Your task to perform on an android device: change your default location settings in chrome Image 0: 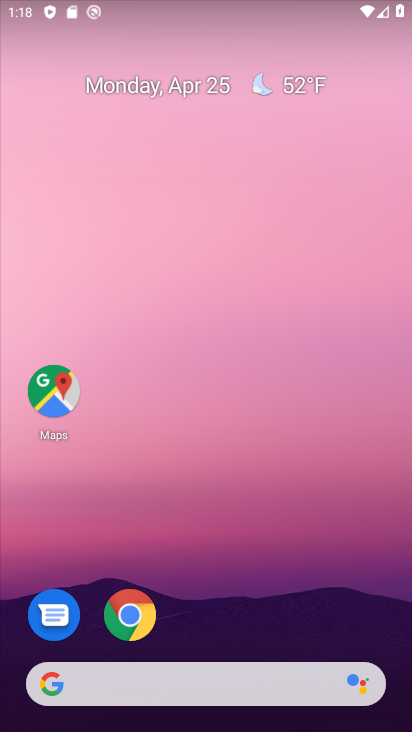
Step 0: click (132, 617)
Your task to perform on an android device: change your default location settings in chrome Image 1: 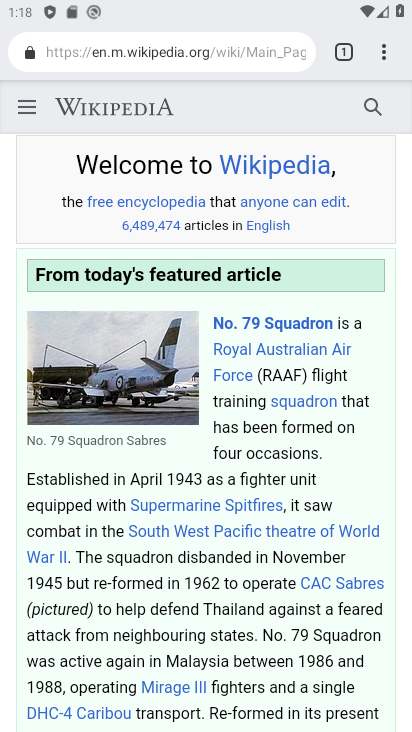
Step 1: click (383, 52)
Your task to perform on an android device: change your default location settings in chrome Image 2: 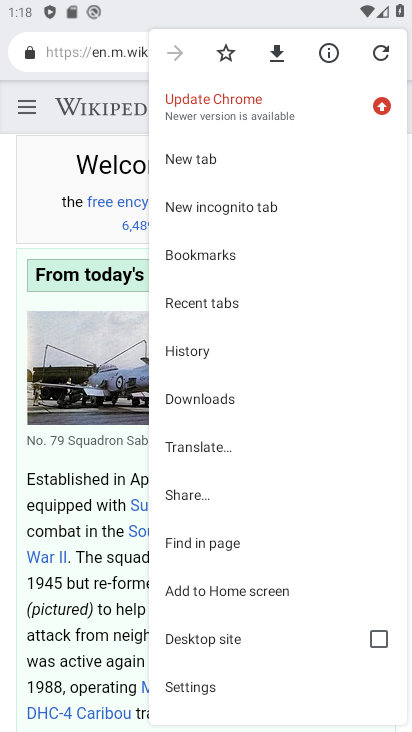
Step 2: click (197, 689)
Your task to perform on an android device: change your default location settings in chrome Image 3: 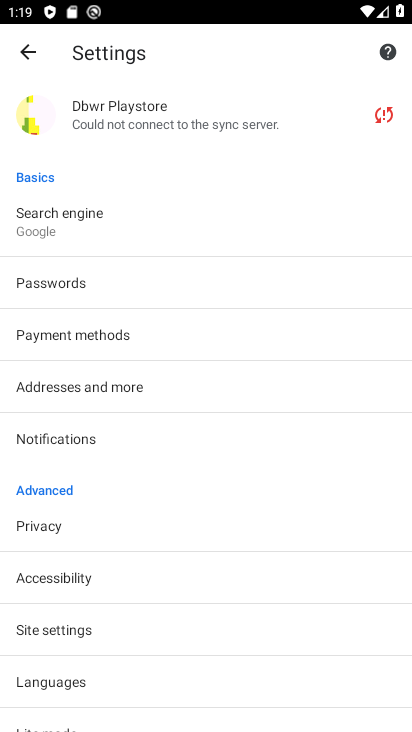
Step 3: click (73, 630)
Your task to perform on an android device: change your default location settings in chrome Image 4: 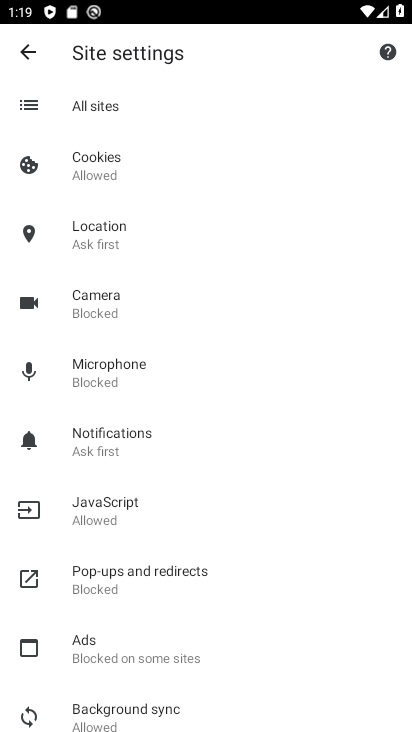
Step 4: click (101, 239)
Your task to perform on an android device: change your default location settings in chrome Image 5: 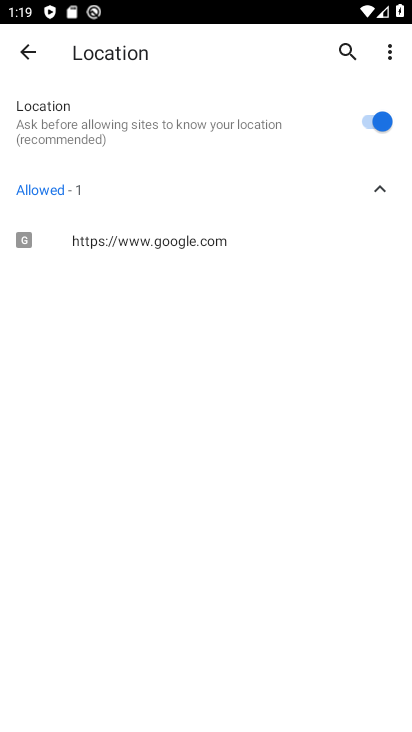
Step 5: click (383, 130)
Your task to perform on an android device: change your default location settings in chrome Image 6: 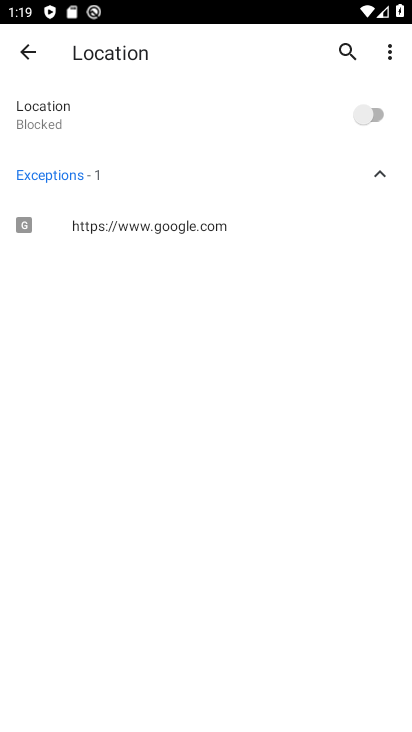
Step 6: task complete